Your task to perform on an android device: check battery use Image 0: 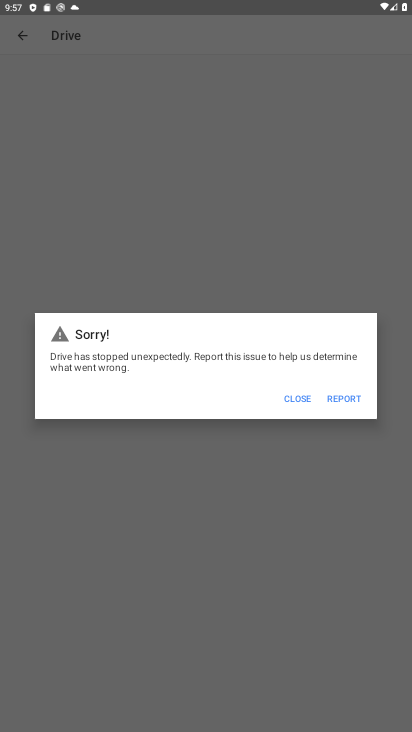
Step 0: task complete